Your task to perform on an android device: Go to Amazon Image 0: 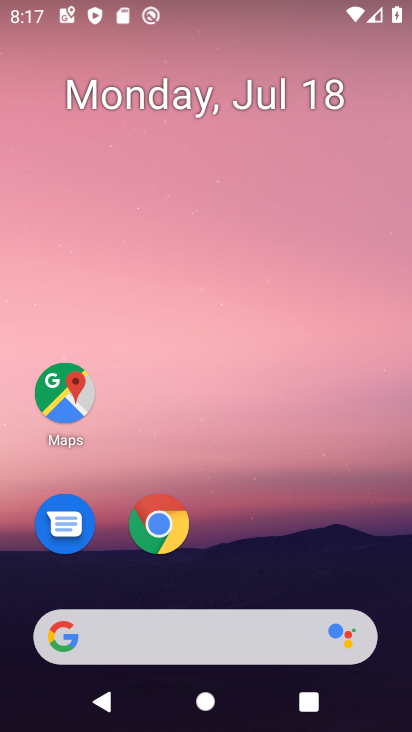
Step 0: drag from (266, 562) to (275, 69)
Your task to perform on an android device: Go to Amazon Image 1: 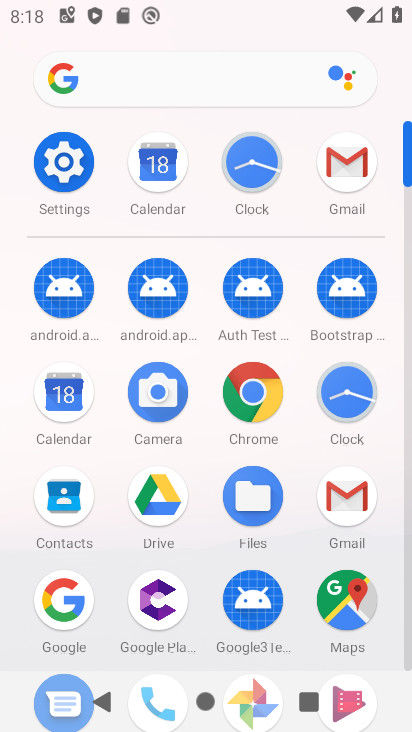
Step 1: click (271, 394)
Your task to perform on an android device: Go to Amazon Image 2: 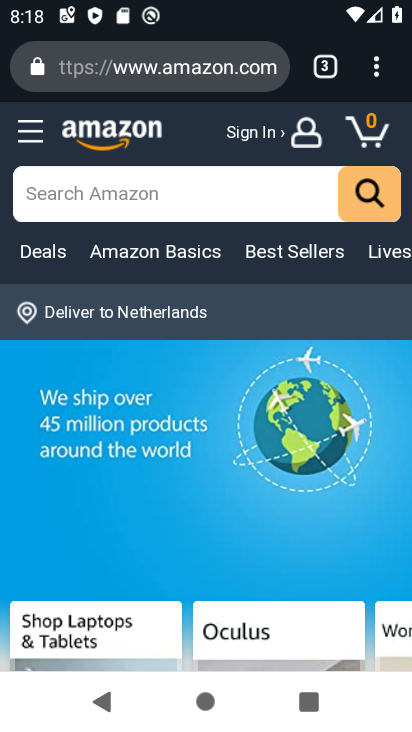
Step 2: task complete